Your task to perform on an android device: turn off picture-in-picture Image 0: 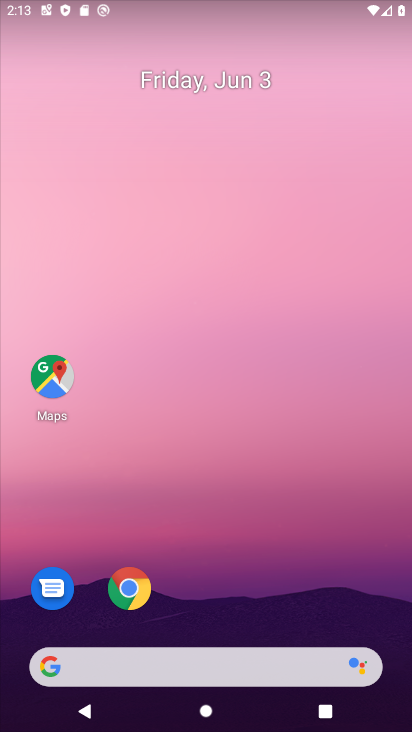
Step 0: drag from (250, 503) to (328, 29)
Your task to perform on an android device: turn off picture-in-picture Image 1: 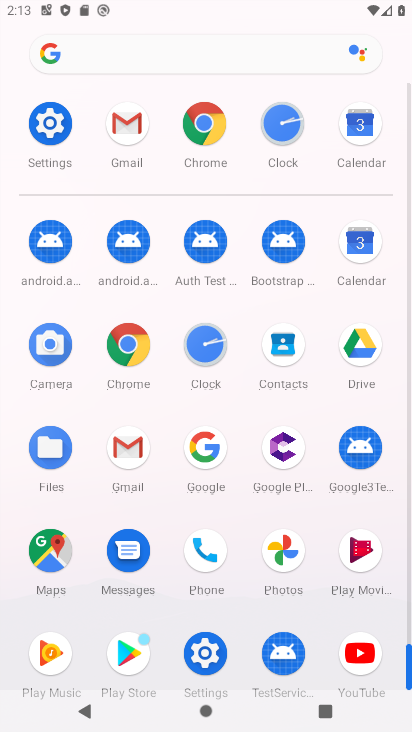
Step 1: click (210, 650)
Your task to perform on an android device: turn off picture-in-picture Image 2: 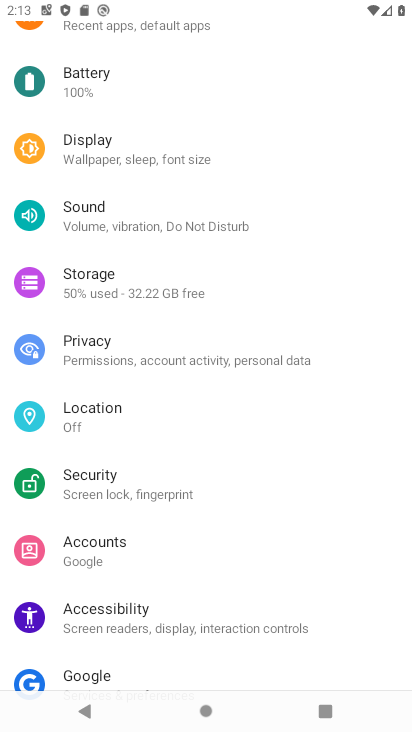
Step 2: drag from (167, 243) to (177, 587)
Your task to perform on an android device: turn off picture-in-picture Image 3: 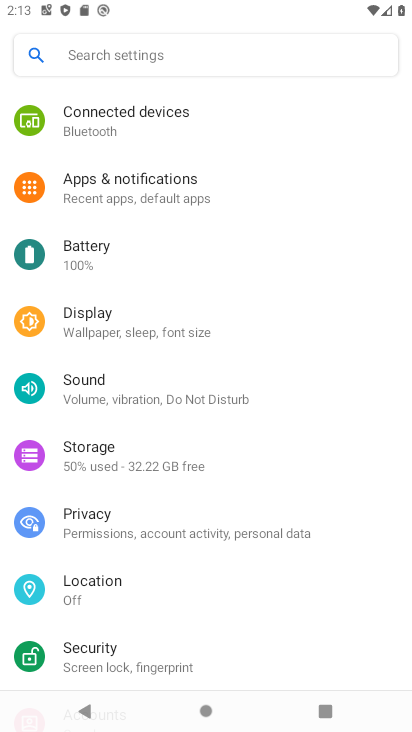
Step 3: click (173, 198)
Your task to perform on an android device: turn off picture-in-picture Image 4: 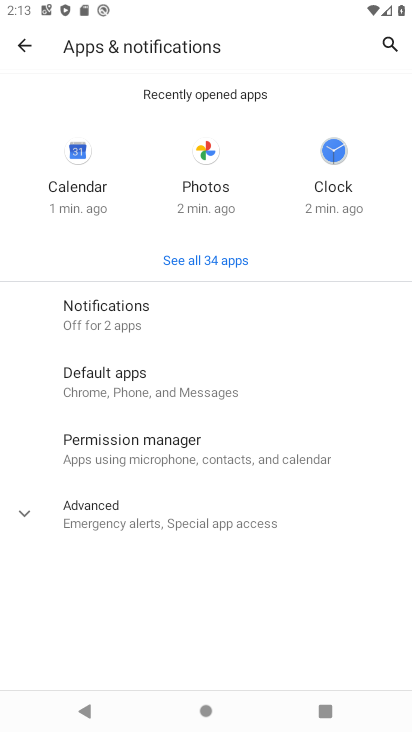
Step 4: click (123, 529)
Your task to perform on an android device: turn off picture-in-picture Image 5: 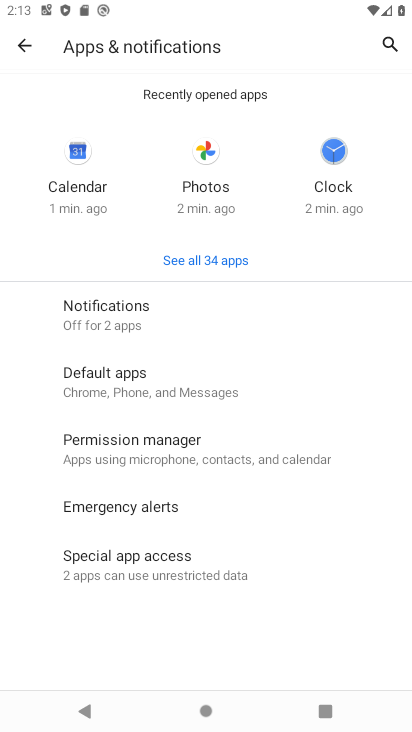
Step 5: click (131, 562)
Your task to perform on an android device: turn off picture-in-picture Image 6: 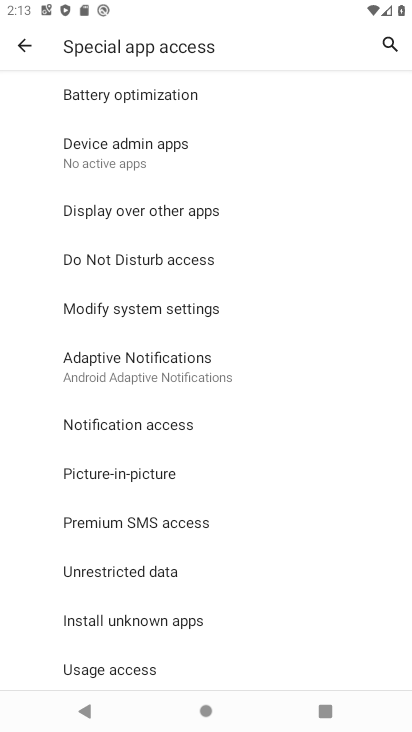
Step 6: click (165, 486)
Your task to perform on an android device: turn off picture-in-picture Image 7: 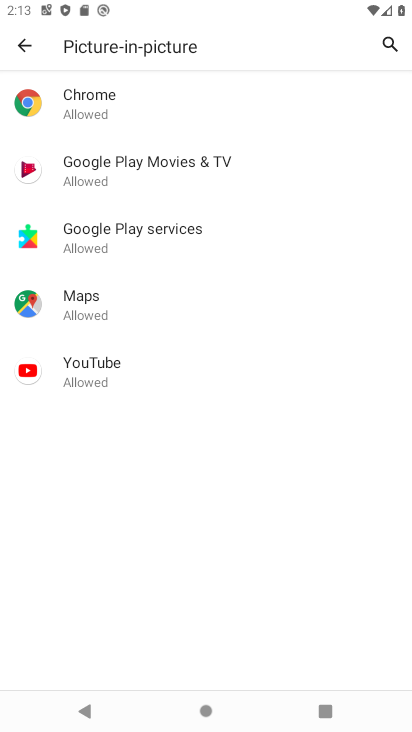
Step 7: click (196, 124)
Your task to perform on an android device: turn off picture-in-picture Image 8: 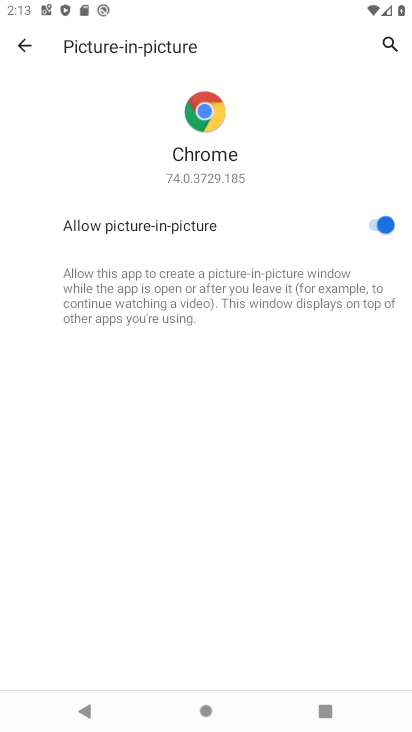
Step 8: click (378, 228)
Your task to perform on an android device: turn off picture-in-picture Image 9: 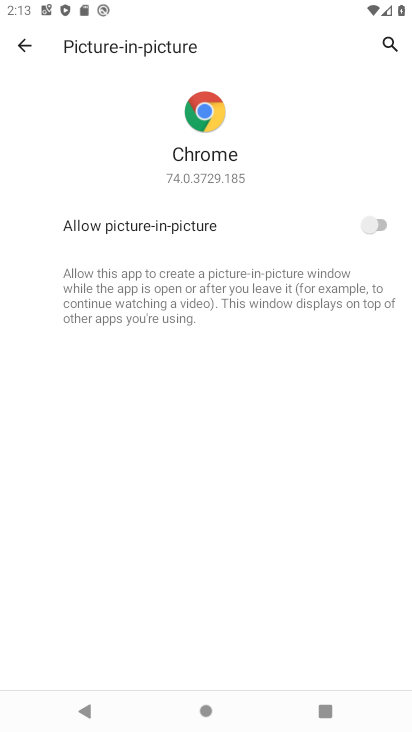
Step 9: task complete